Your task to perform on an android device: Go to accessibility settings Image 0: 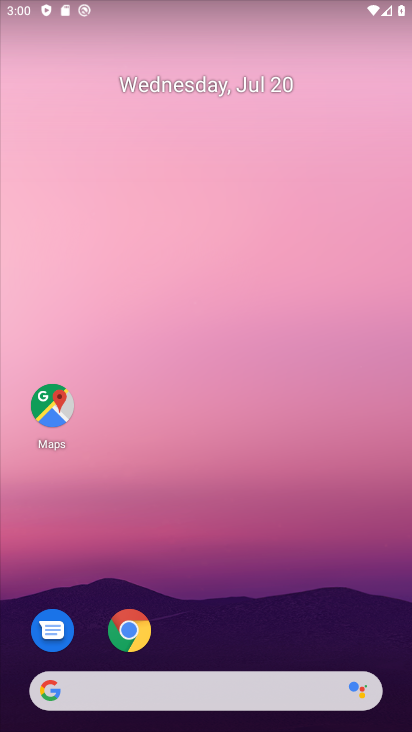
Step 0: drag from (261, 538) to (214, 174)
Your task to perform on an android device: Go to accessibility settings Image 1: 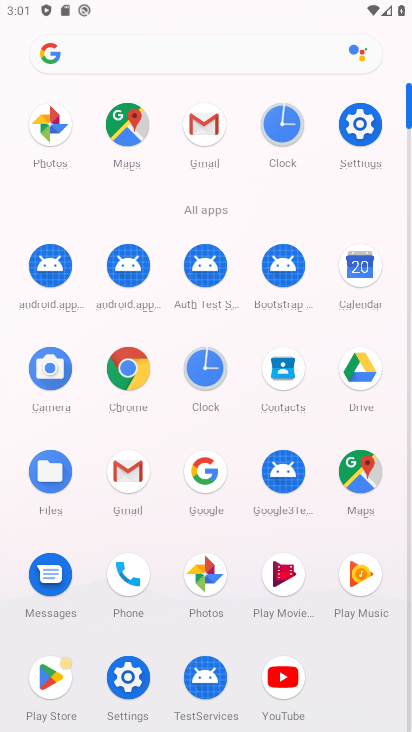
Step 1: click (127, 670)
Your task to perform on an android device: Go to accessibility settings Image 2: 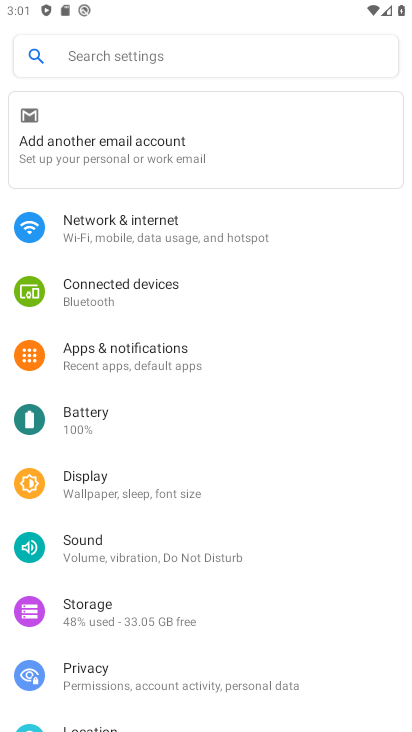
Step 2: drag from (140, 475) to (97, 281)
Your task to perform on an android device: Go to accessibility settings Image 3: 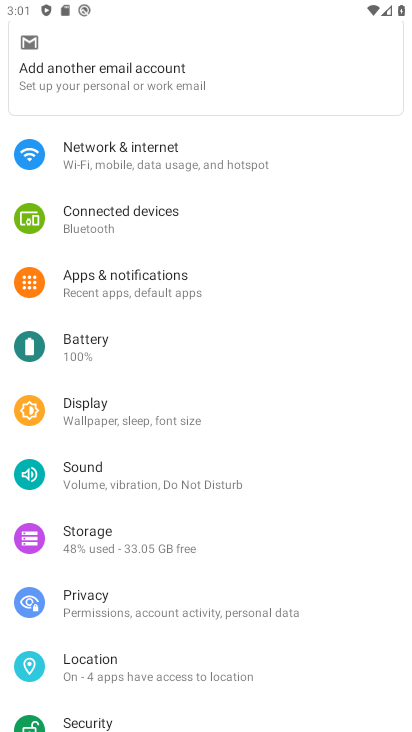
Step 3: drag from (182, 658) to (132, 394)
Your task to perform on an android device: Go to accessibility settings Image 4: 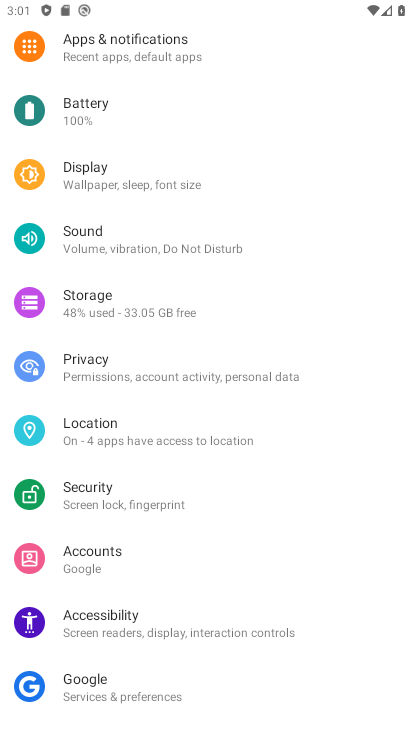
Step 4: click (133, 612)
Your task to perform on an android device: Go to accessibility settings Image 5: 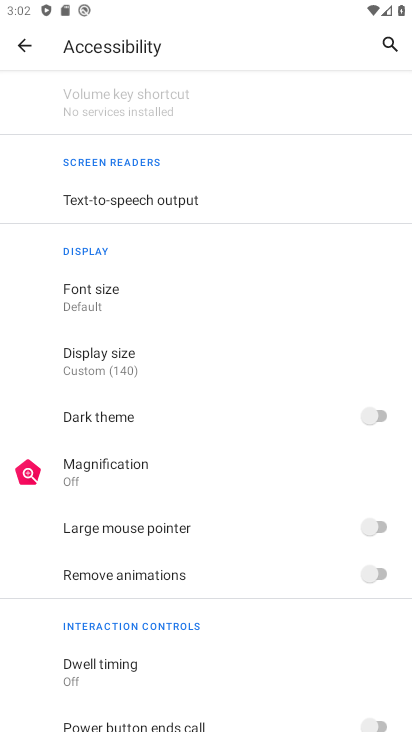
Step 5: task complete